Your task to perform on an android device: Show me the alarms in the clock app Image 0: 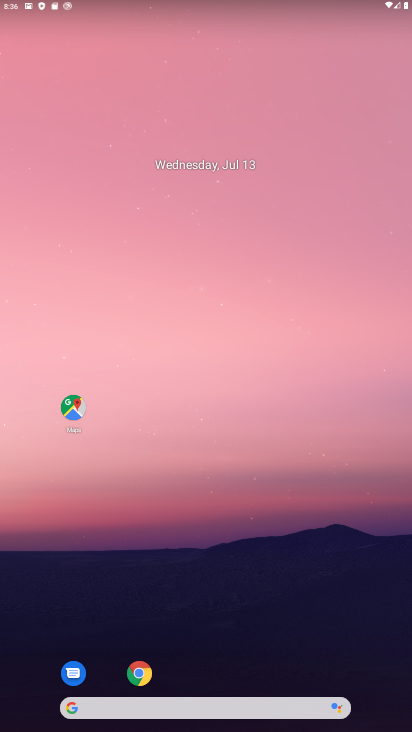
Step 0: press home button
Your task to perform on an android device: Show me the alarms in the clock app Image 1: 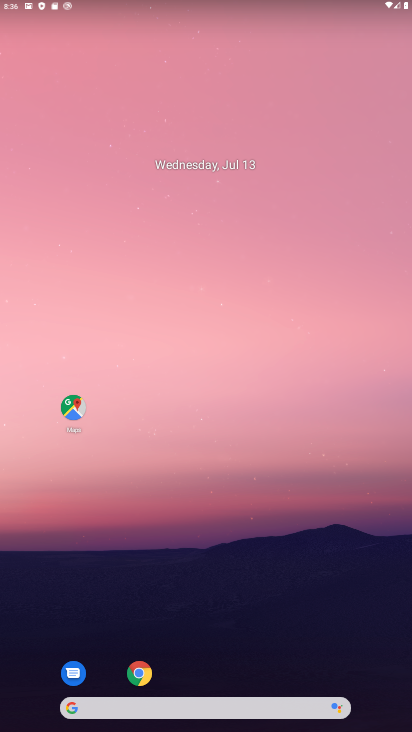
Step 1: drag from (159, 691) to (162, 395)
Your task to perform on an android device: Show me the alarms in the clock app Image 2: 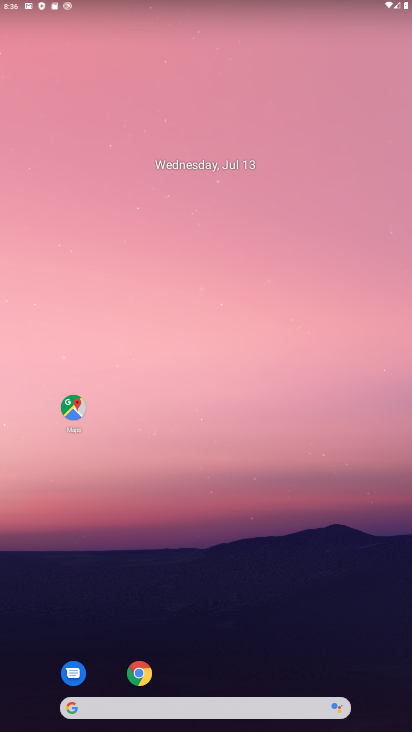
Step 2: drag from (229, 695) to (195, 220)
Your task to perform on an android device: Show me the alarms in the clock app Image 3: 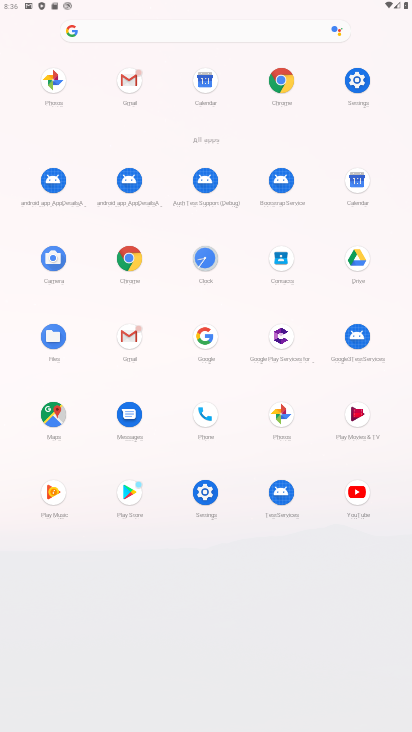
Step 3: click (187, 257)
Your task to perform on an android device: Show me the alarms in the clock app Image 4: 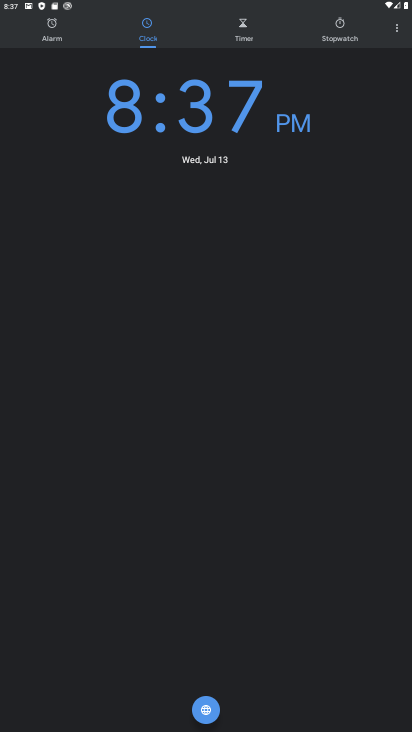
Step 4: click (55, 38)
Your task to perform on an android device: Show me the alarms in the clock app Image 5: 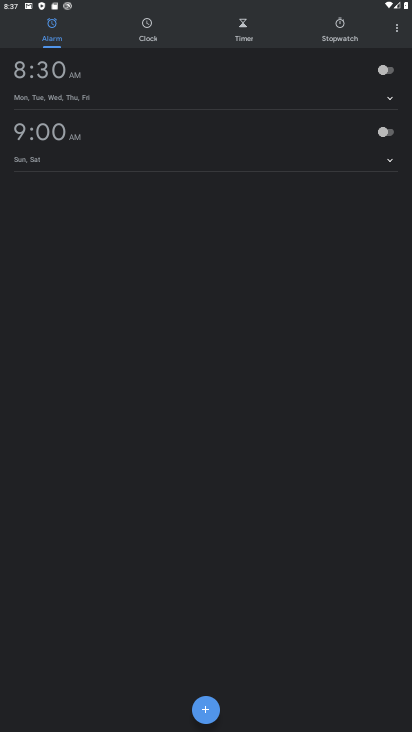
Step 5: task complete